Your task to perform on an android device: Check the weather Image 0: 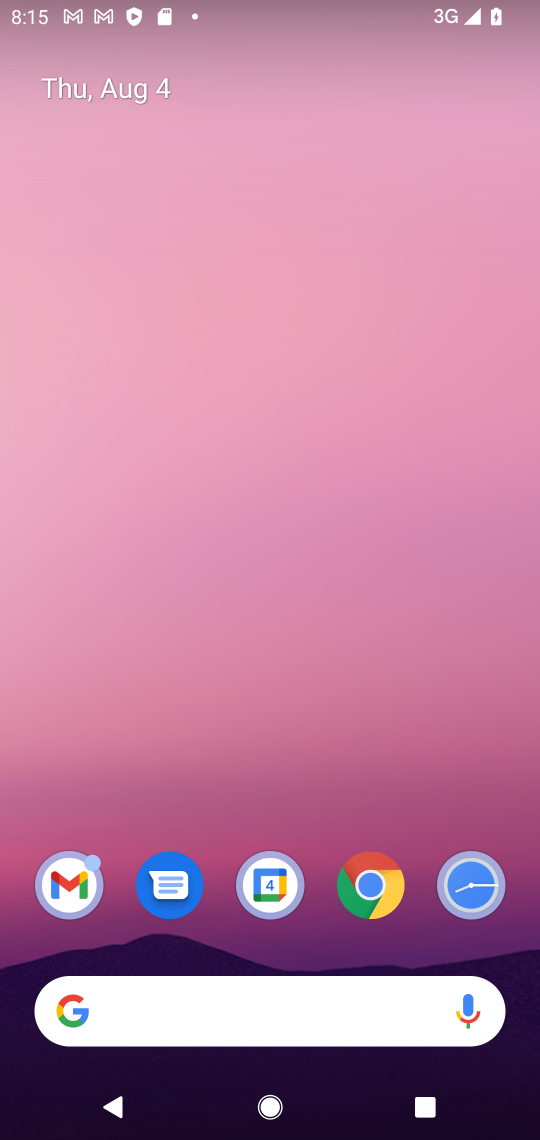
Step 0: press home button
Your task to perform on an android device: Check the weather Image 1: 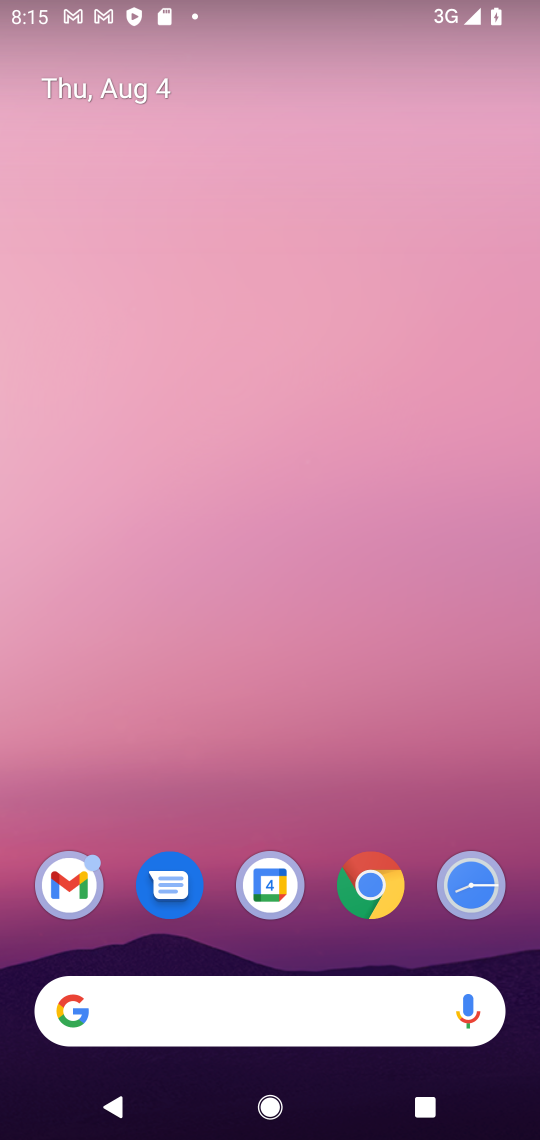
Step 1: press home button
Your task to perform on an android device: Check the weather Image 2: 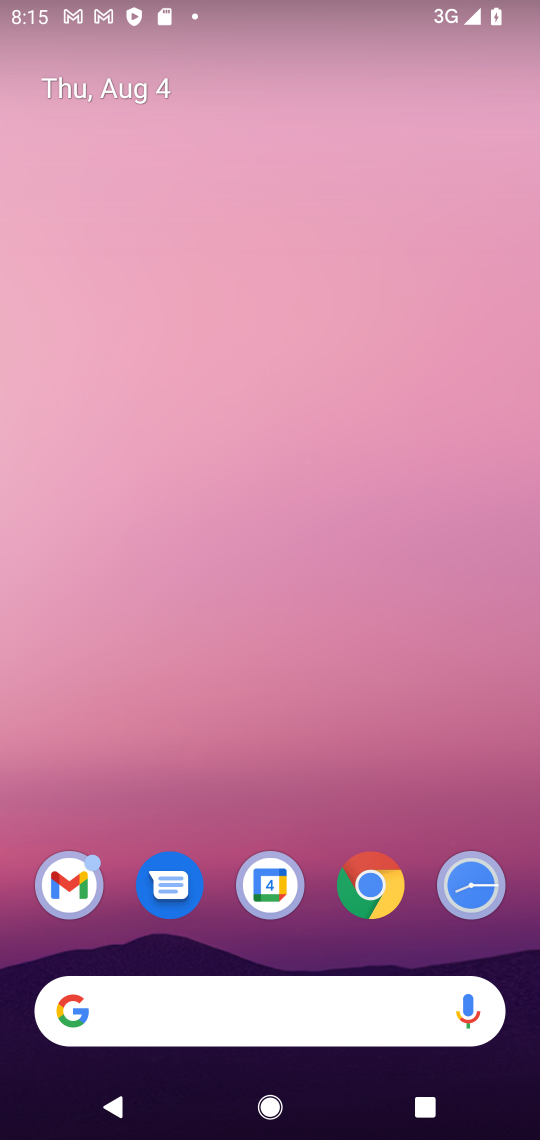
Step 2: click (373, 892)
Your task to perform on an android device: Check the weather Image 3: 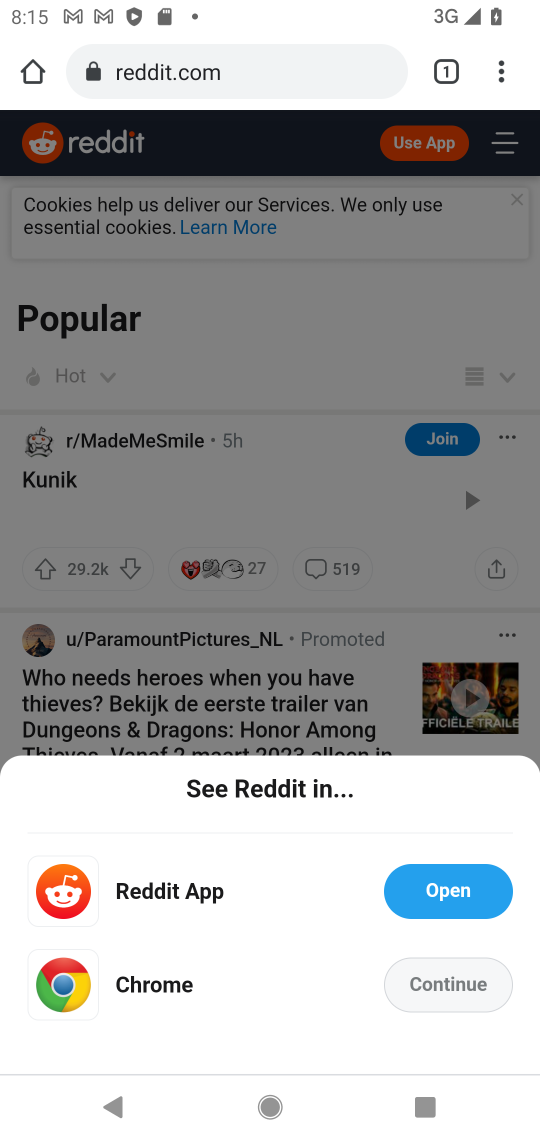
Step 3: click (111, 77)
Your task to perform on an android device: Check the weather Image 4: 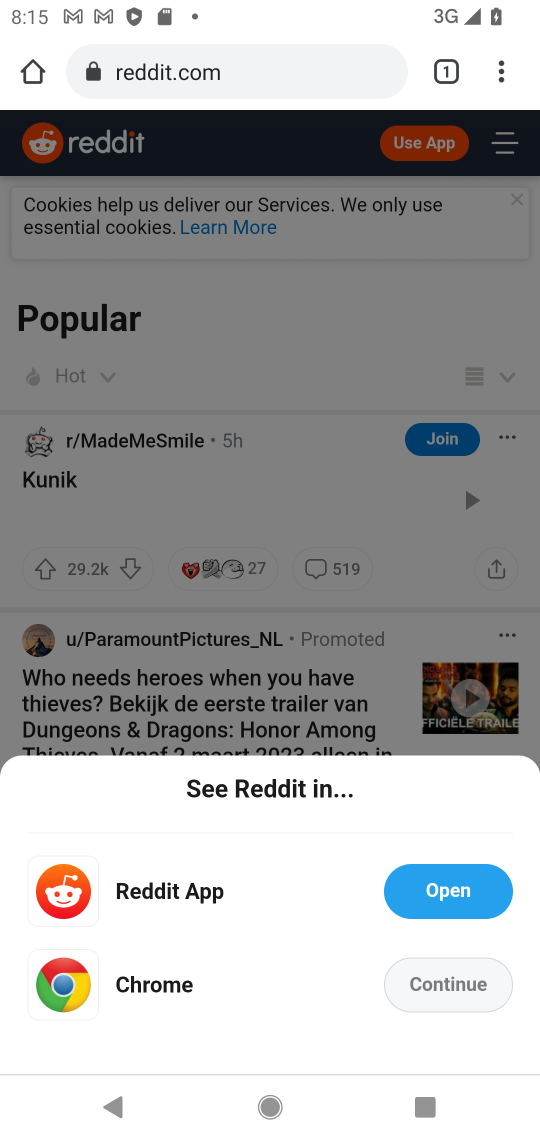
Step 4: click (127, 85)
Your task to perform on an android device: Check the weather Image 5: 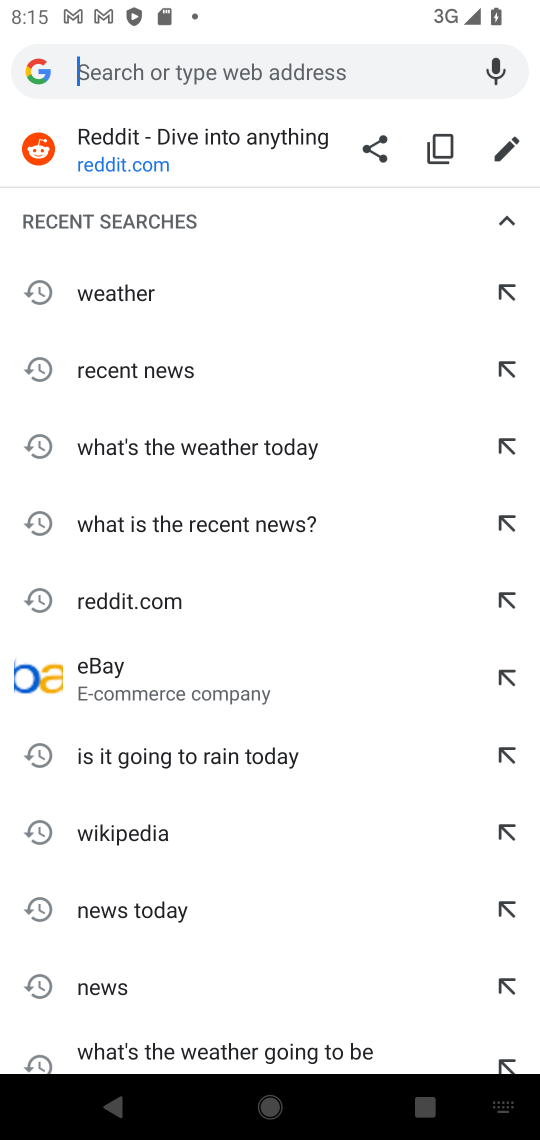
Step 5: type "Check the weather"
Your task to perform on an android device: Check the weather Image 6: 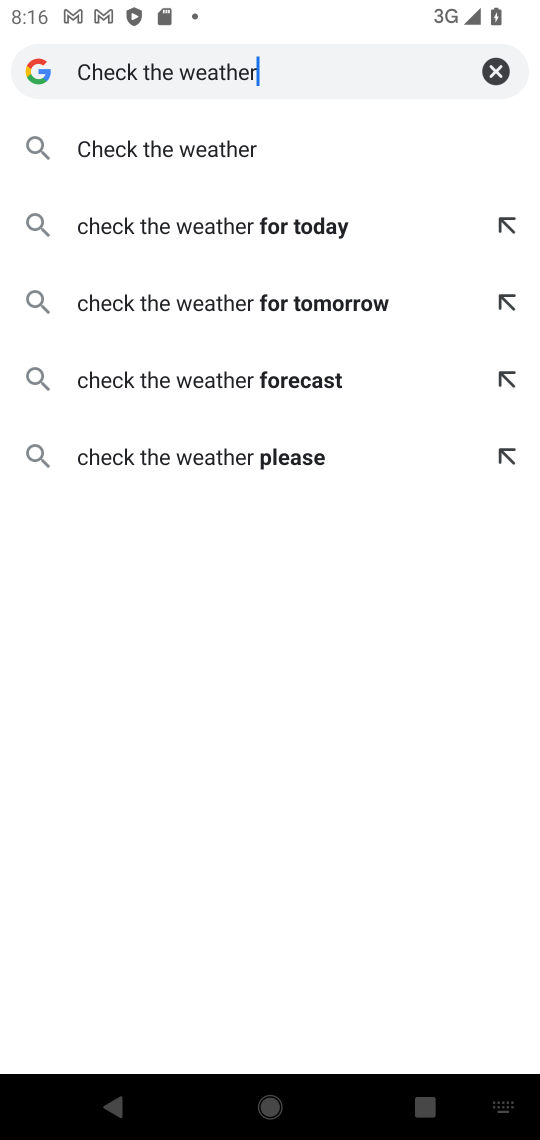
Step 6: click (81, 142)
Your task to perform on an android device: Check the weather Image 7: 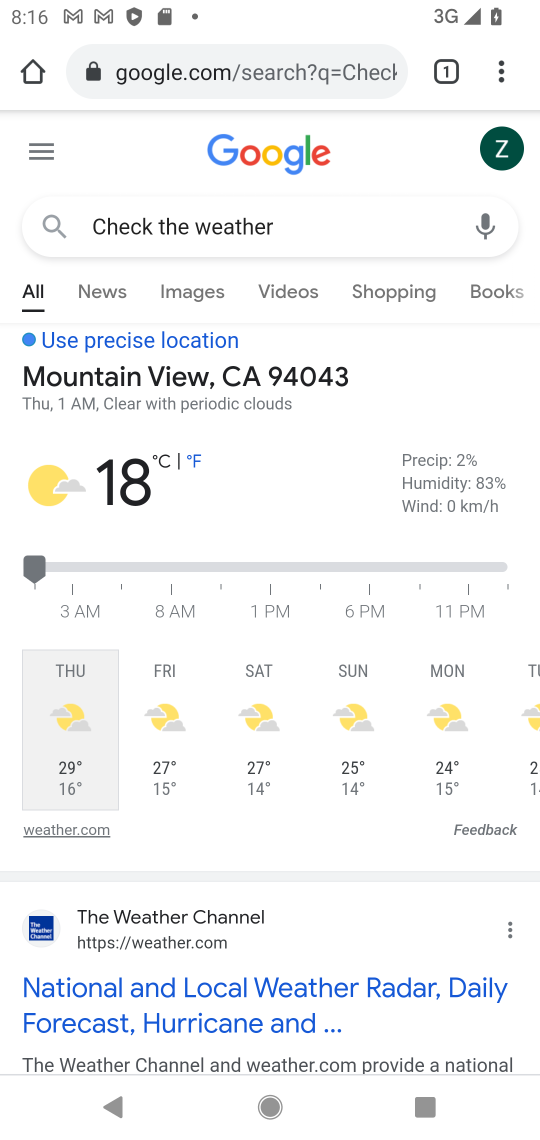
Step 7: task complete